Your task to perform on an android device: delete browsing data in the chrome app Image 0: 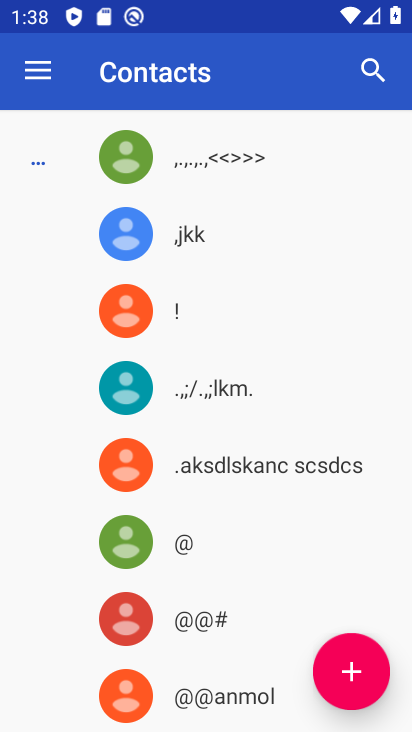
Step 0: press home button
Your task to perform on an android device: delete browsing data in the chrome app Image 1: 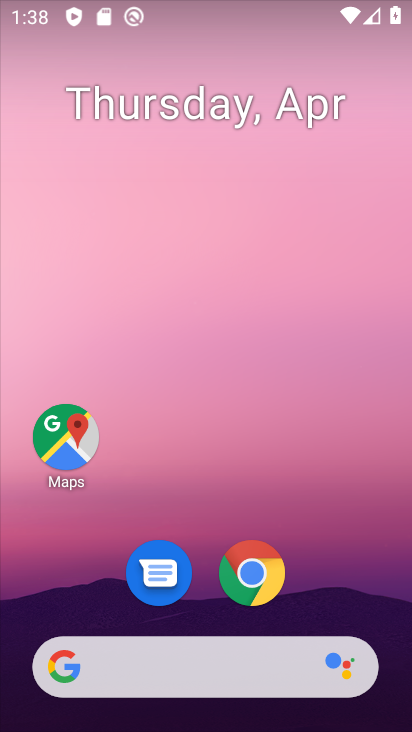
Step 1: drag from (334, 571) to (238, 55)
Your task to perform on an android device: delete browsing data in the chrome app Image 2: 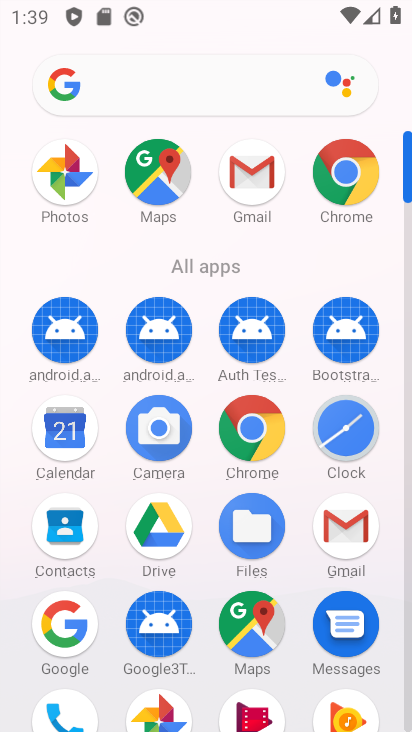
Step 2: click (251, 434)
Your task to perform on an android device: delete browsing data in the chrome app Image 3: 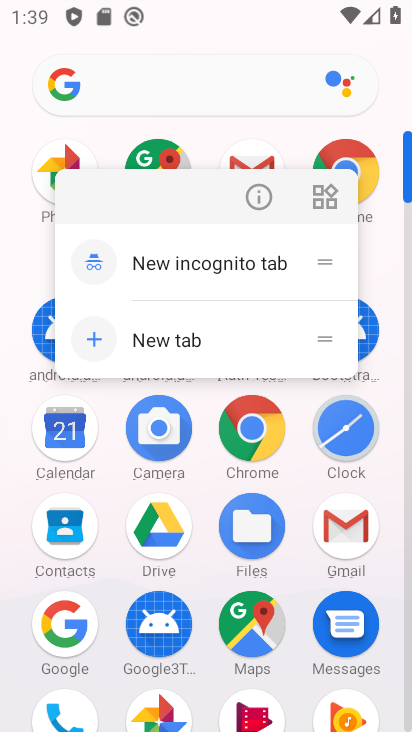
Step 3: click (251, 434)
Your task to perform on an android device: delete browsing data in the chrome app Image 4: 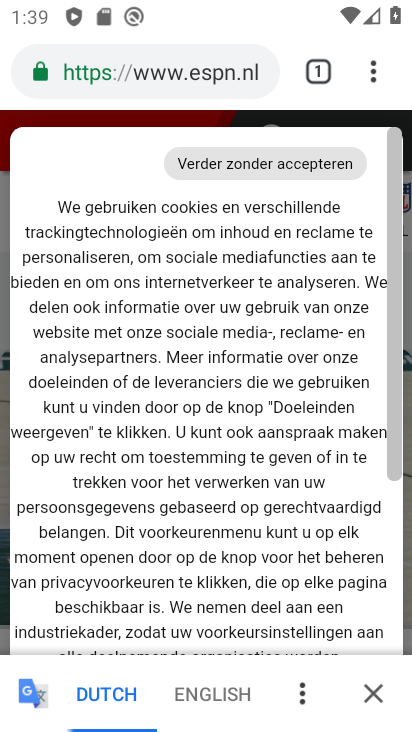
Step 4: click (371, 68)
Your task to perform on an android device: delete browsing data in the chrome app Image 5: 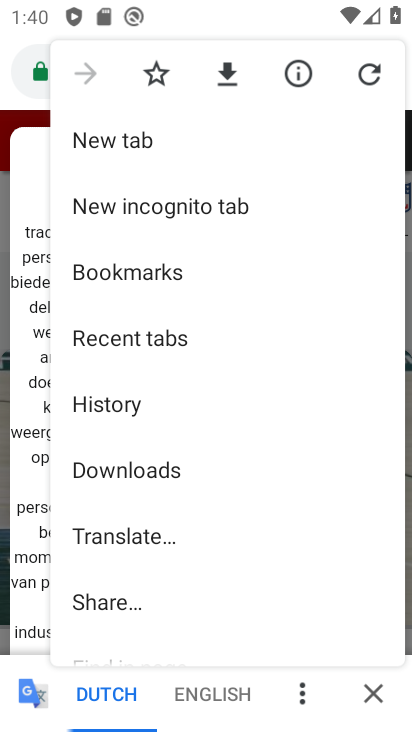
Step 5: click (177, 398)
Your task to perform on an android device: delete browsing data in the chrome app Image 6: 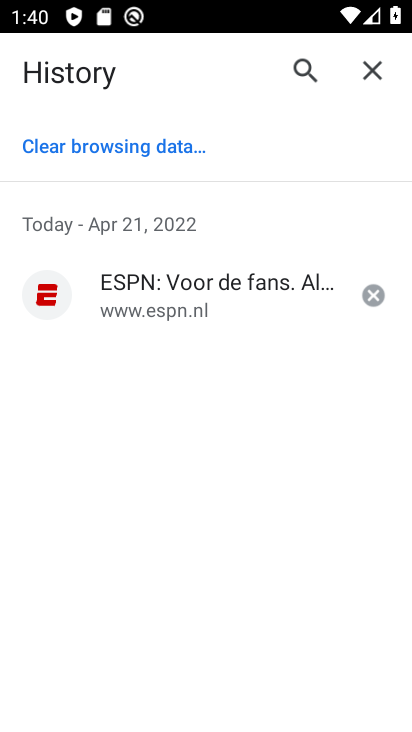
Step 6: click (127, 138)
Your task to perform on an android device: delete browsing data in the chrome app Image 7: 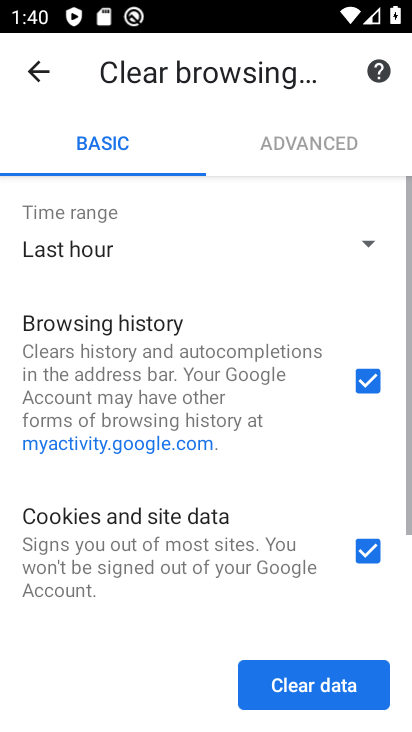
Step 7: click (293, 676)
Your task to perform on an android device: delete browsing data in the chrome app Image 8: 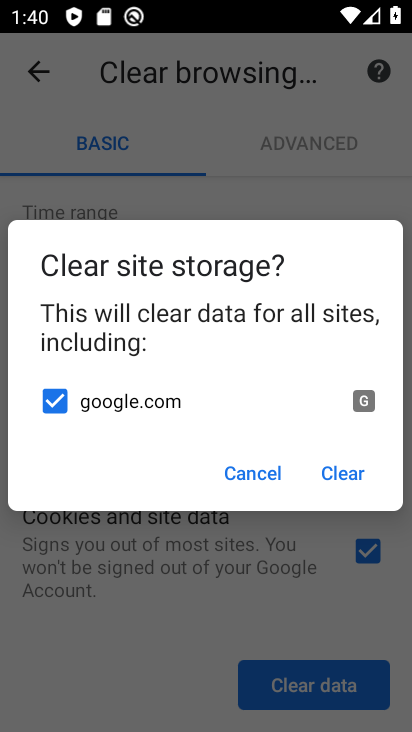
Step 8: click (352, 473)
Your task to perform on an android device: delete browsing data in the chrome app Image 9: 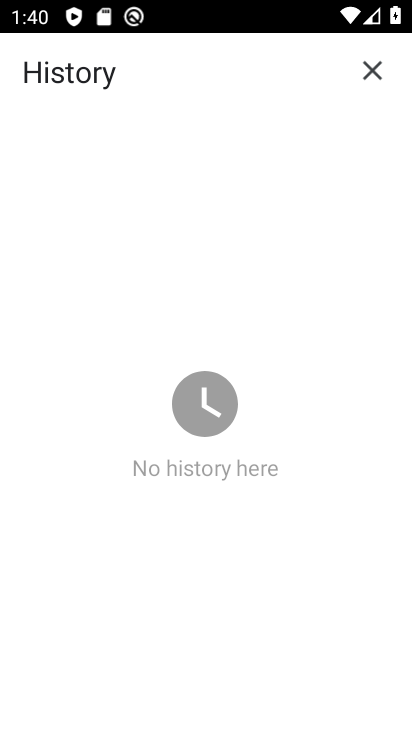
Step 9: task complete